Your task to perform on an android device: Open Youtube and go to the subscriptions tab Image 0: 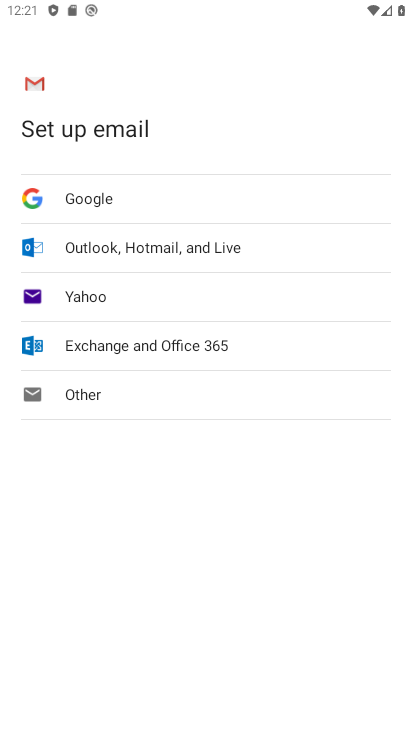
Step 0: press home button
Your task to perform on an android device: Open Youtube and go to the subscriptions tab Image 1: 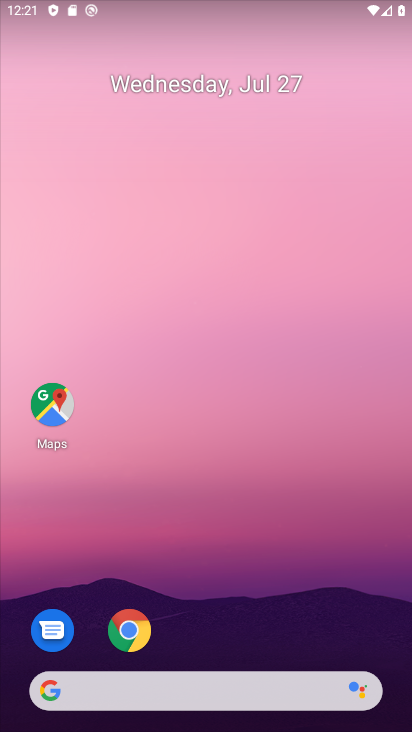
Step 1: drag from (206, 657) to (148, 219)
Your task to perform on an android device: Open Youtube and go to the subscriptions tab Image 2: 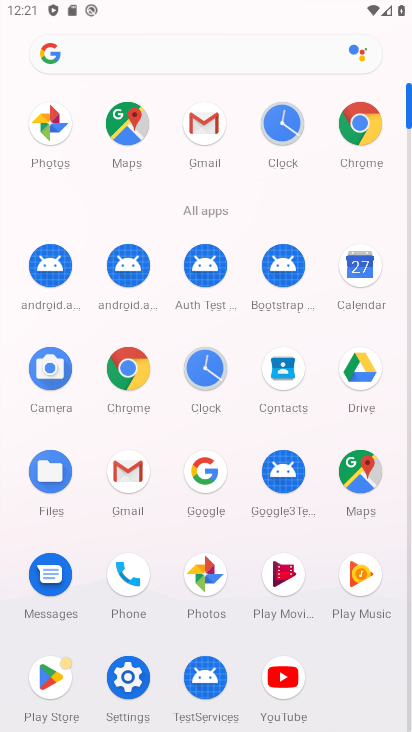
Step 2: click (293, 671)
Your task to perform on an android device: Open Youtube and go to the subscriptions tab Image 3: 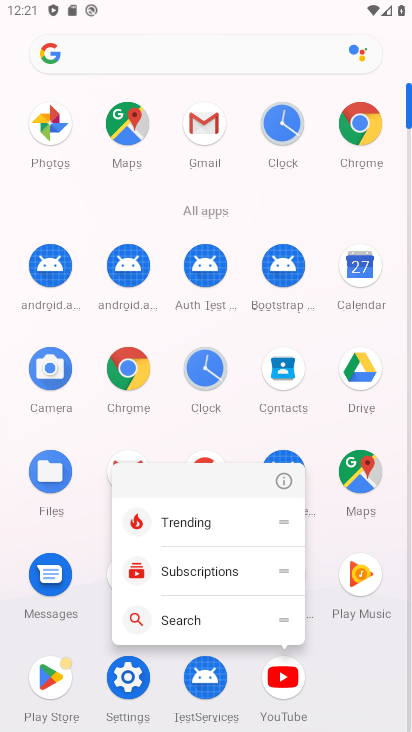
Step 3: click (212, 566)
Your task to perform on an android device: Open Youtube and go to the subscriptions tab Image 4: 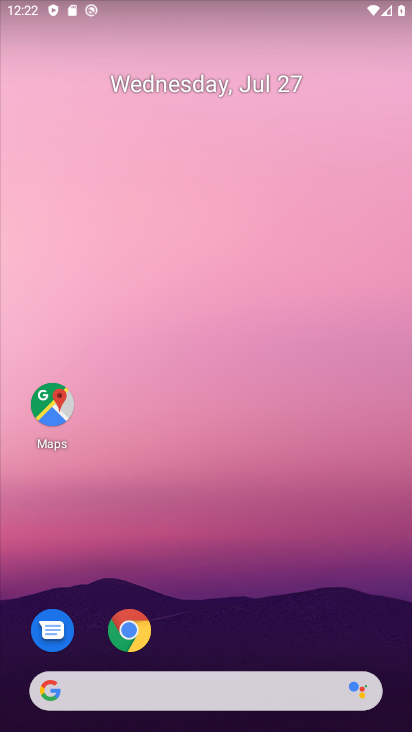
Step 4: drag from (208, 661) to (176, 171)
Your task to perform on an android device: Open Youtube and go to the subscriptions tab Image 5: 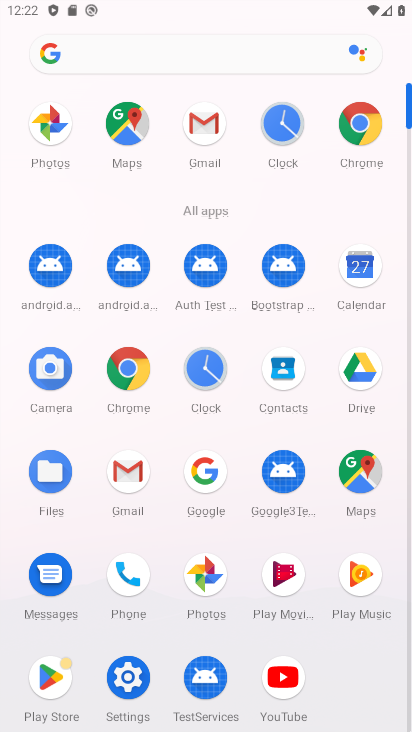
Step 5: click (289, 676)
Your task to perform on an android device: Open Youtube and go to the subscriptions tab Image 6: 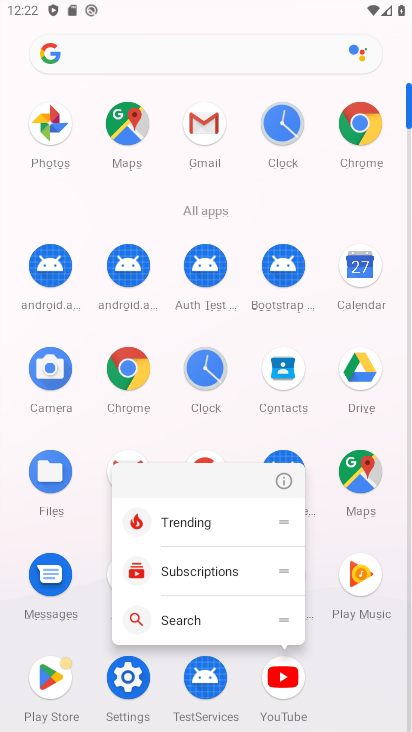
Step 6: click (294, 678)
Your task to perform on an android device: Open Youtube and go to the subscriptions tab Image 7: 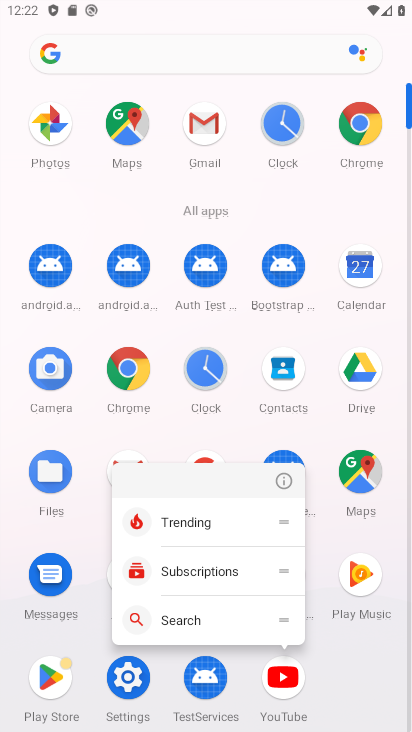
Step 7: click (288, 679)
Your task to perform on an android device: Open Youtube and go to the subscriptions tab Image 8: 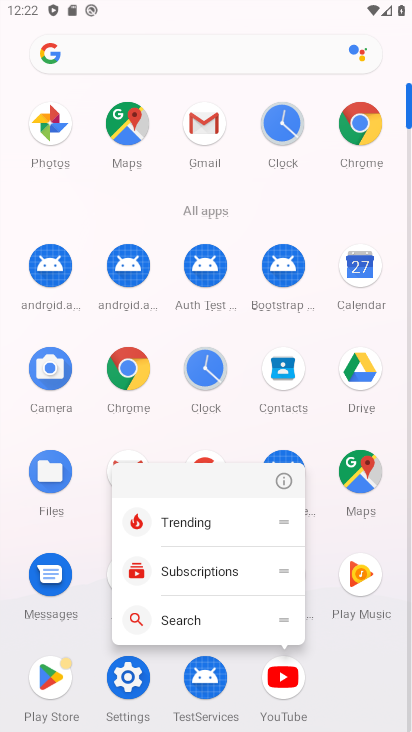
Step 8: click (282, 679)
Your task to perform on an android device: Open Youtube and go to the subscriptions tab Image 9: 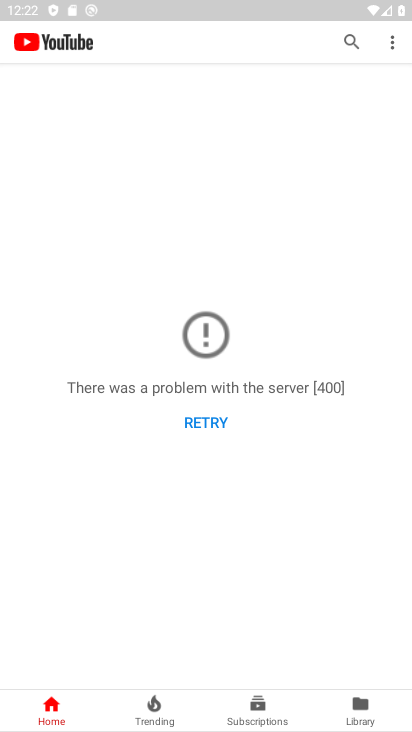
Step 9: click (261, 704)
Your task to perform on an android device: Open Youtube and go to the subscriptions tab Image 10: 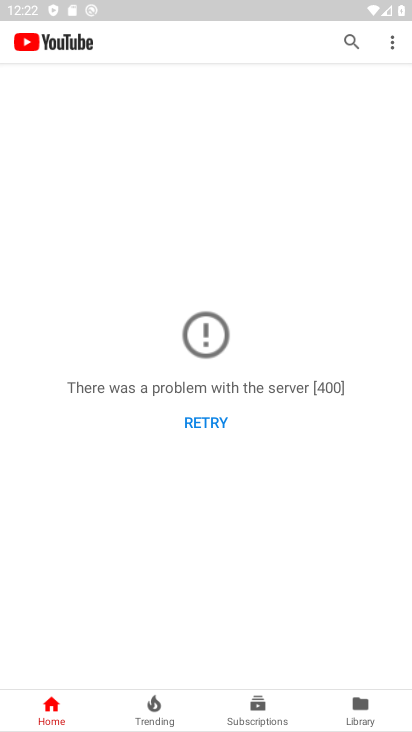
Step 10: click (258, 702)
Your task to perform on an android device: Open Youtube and go to the subscriptions tab Image 11: 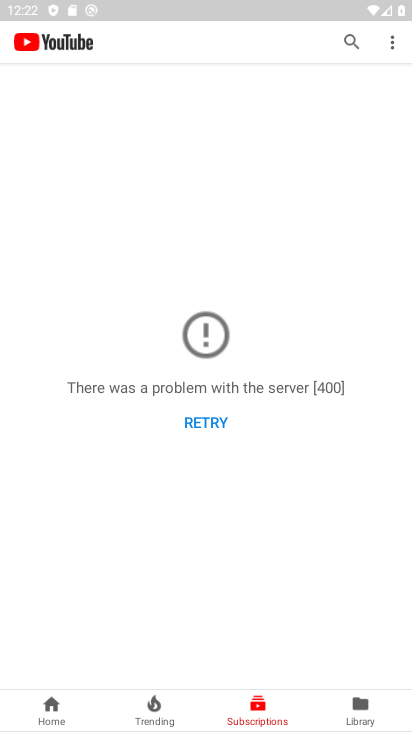
Step 11: task complete